Your task to perform on an android device: turn on improve location accuracy Image 0: 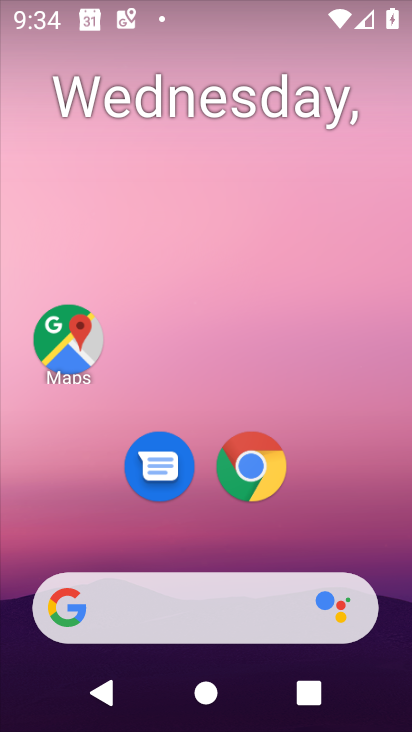
Step 0: drag from (319, 433) to (314, 274)
Your task to perform on an android device: turn on improve location accuracy Image 1: 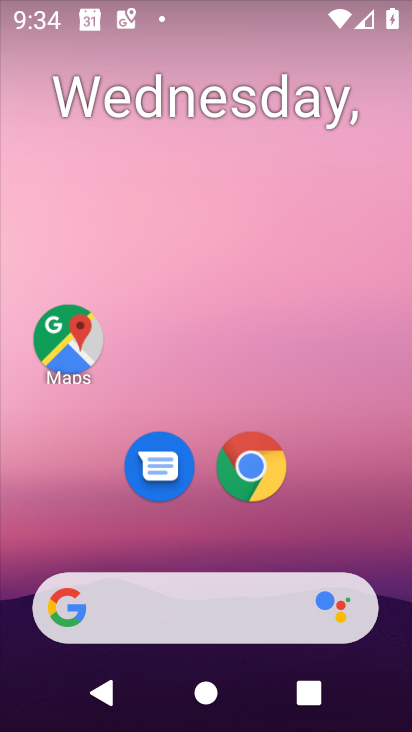
Step 1: drag from (317, 500) to (321, 240)
Your task to perform on an android device: turn on improve location accuracy Image 2: 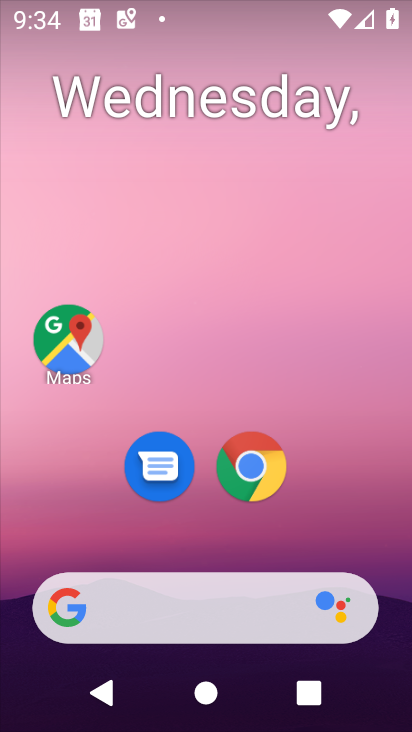
Step 2: drag from (316, 556) to (337, 222)
Your task to perform on an android device: turn on improve location accuracy Image 3: 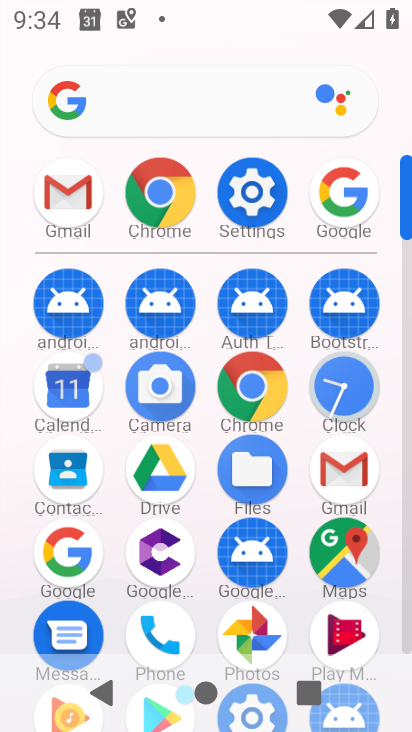
Step 3: click (238, 182)
Your task to perform on an android device: turn on improve location accuracy Image 4: 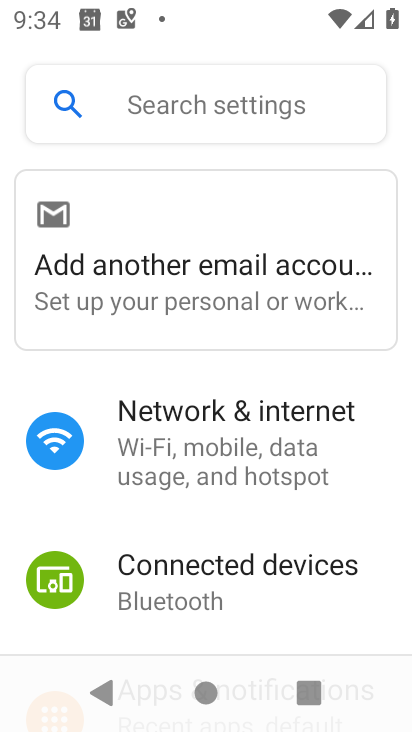
Step 4: drag from (242, 602) to (286, 310)
Your task to perform on an android device: turn on improve location accuracy Image 5: 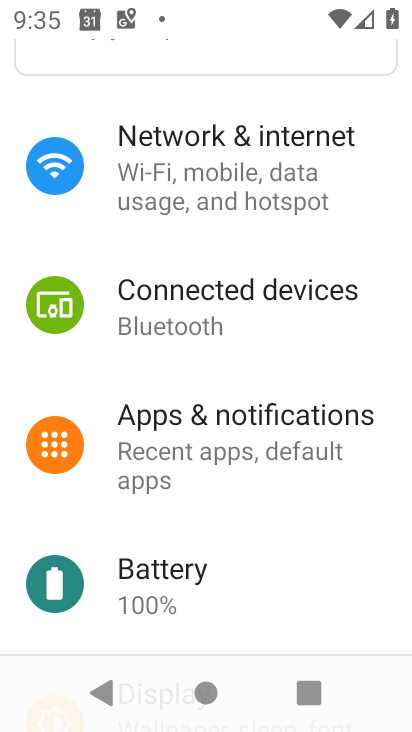
Step 5: drag from (191, 492) to (254, 216)
Your task to perform on an android device: turn on improve location accuracy Image 6: 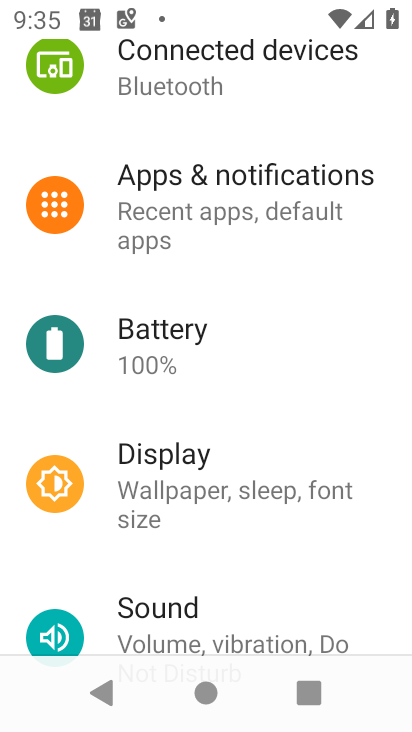
Step 6: drag from (225, 274) to (259, 115)
Your task to perform on an android device: turn on improve location accuracy Image 7: 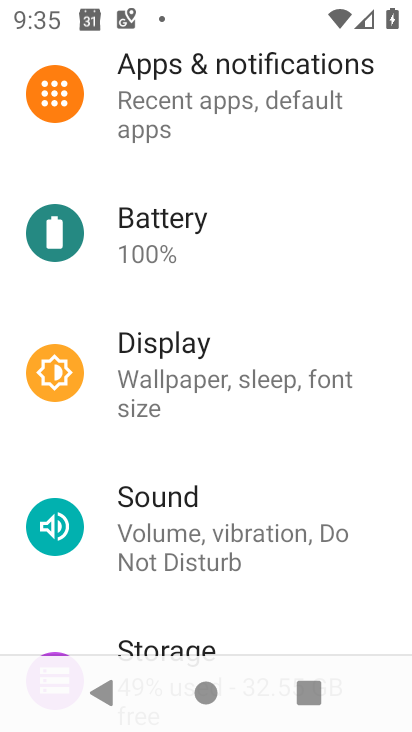
Step 7: drag from (196, 583) to (282, 121)
Your task to perform on an android device: turn on improve location accuracy Image 8: 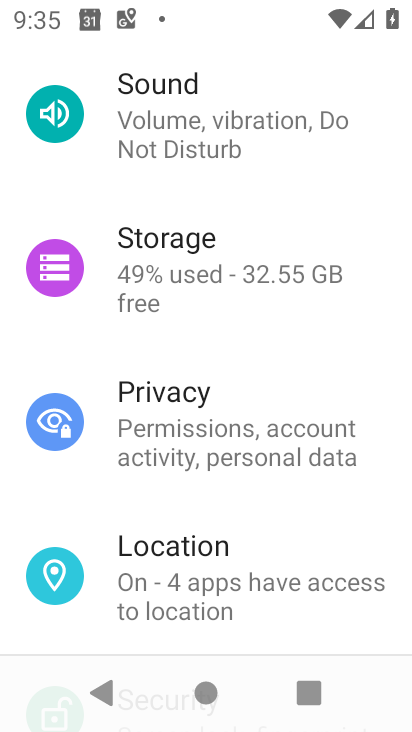
Step 8: click (207, 592)
Your task to perform on an android device: turn on improve location accuracy Image 9: 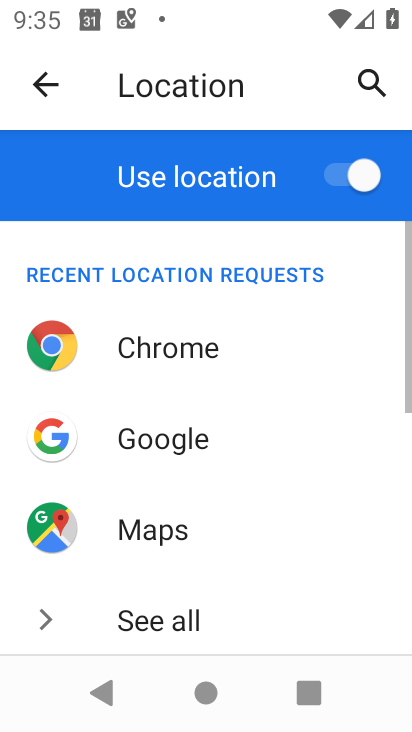
Step 9: drag from (244, 608) to (290, 209)
Your task to perform on an android device: turn on improve location accuracy Image 10: 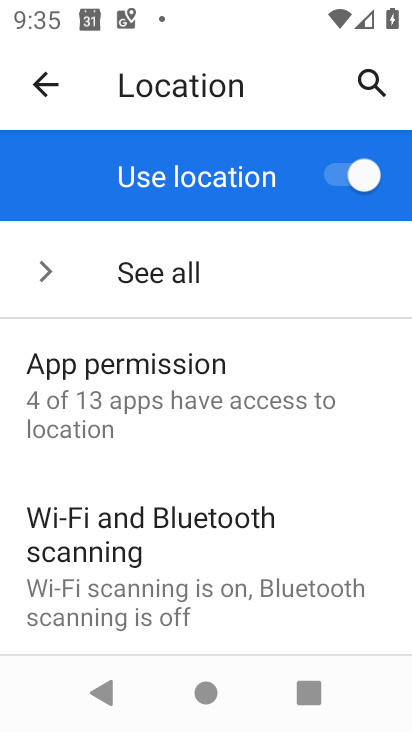
Step 10: drag from (169, 553) to (238, 247)
Your task to perform on an android device: turn on improve location accuracy Image 11: 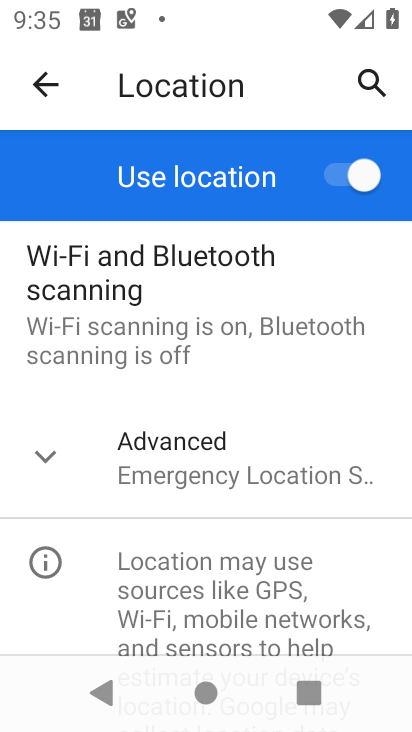
Step 11: click (179, 458)
Your task to perform on an android device: turn on improve location accuracy Image 12: 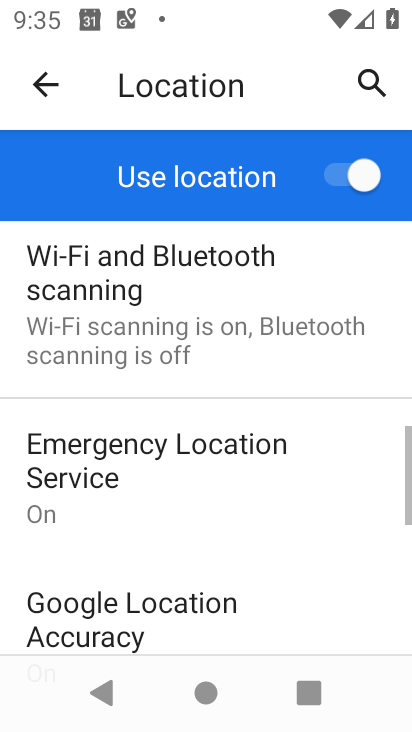
Step 12: click (142, 623)
Your task to perform on an android device: turn on improve location accuracy Image 13: 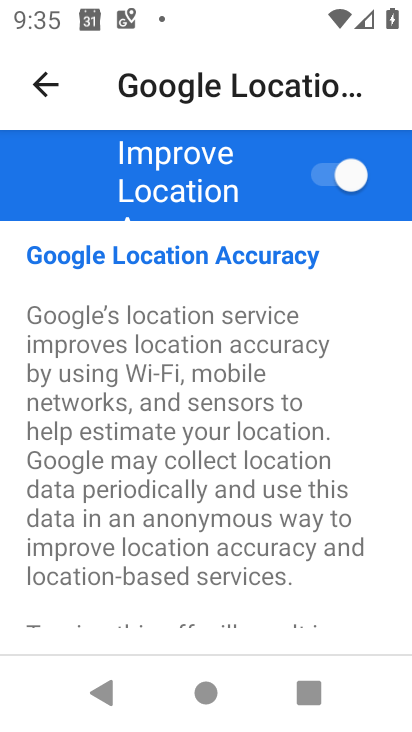
Step 13: task complete